Your task to perform on an android device: find photos in the google photos app Image 0: 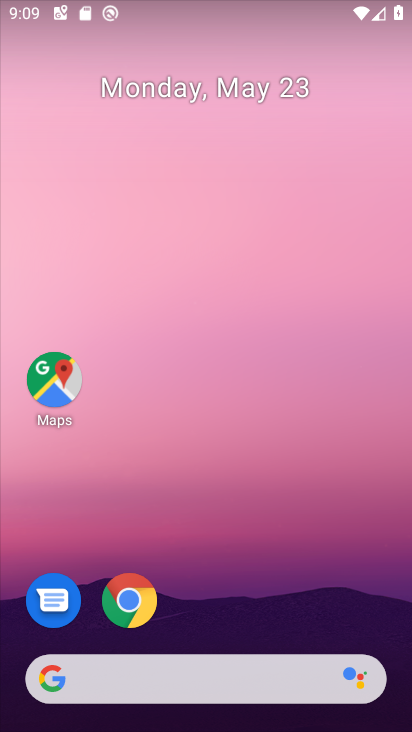
Step 0: drag from (227, 730) to (227, 21)
Your task to perform on an android device: find photos in the google photos app Image 1: 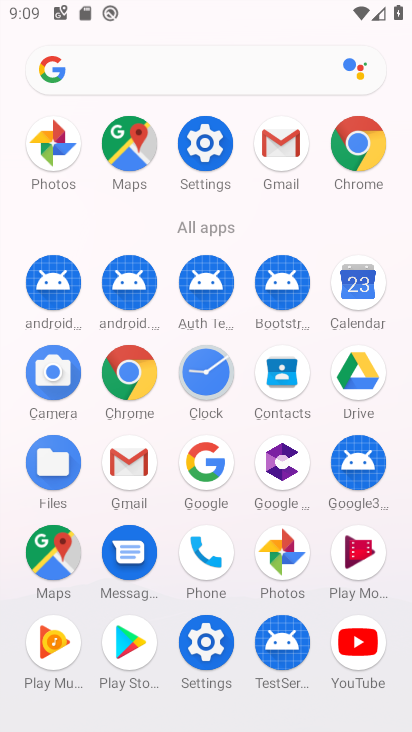
Step 1: click (284, 550)
Your task to perform on an android device: find photos in the google photos app Image 2: 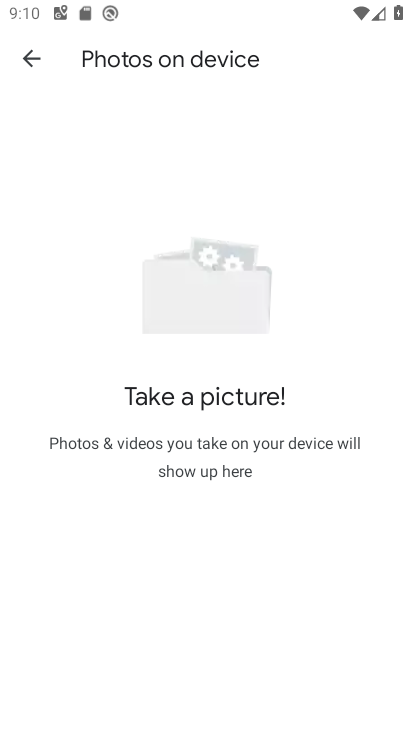
Step 2: click (30, 53)
Your task to perform on an android device: find photos in the google photos app Image 3: 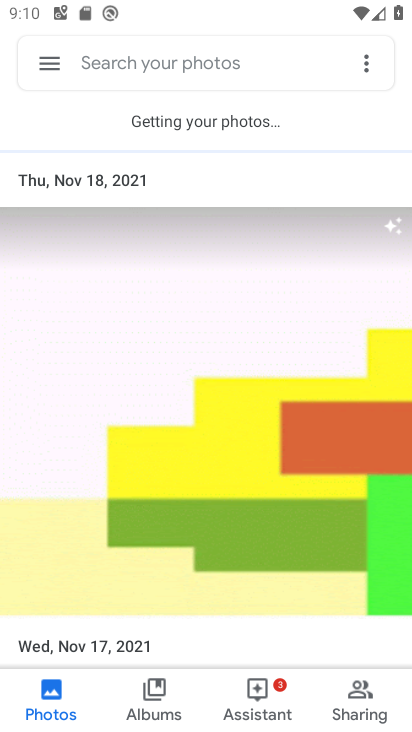
Step 3: drag from (168, 644) to (168, 182)
Your task to perform on an android device: find photos in the google photos app Image 4: 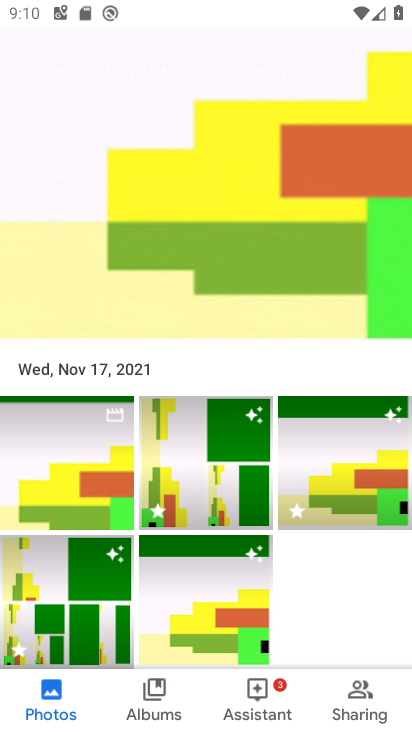
Step 4: click (81, 448)
Your task to perform on an android device: find photos in the google photos app Image 5: 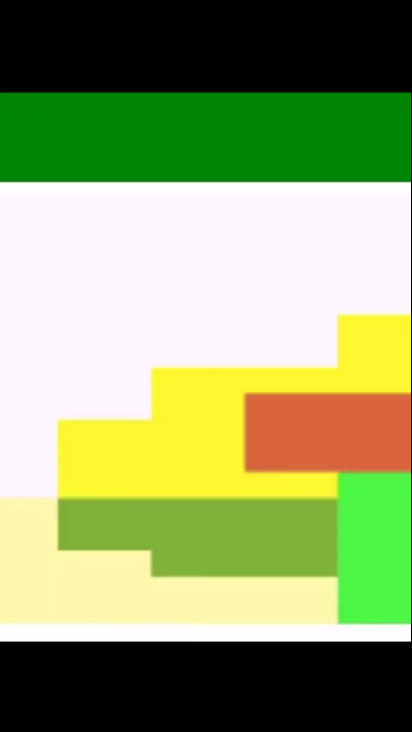
Step 5: task complete